Your task to perform on an android device: Open the phone app and click the voicemail tab. Image 0: 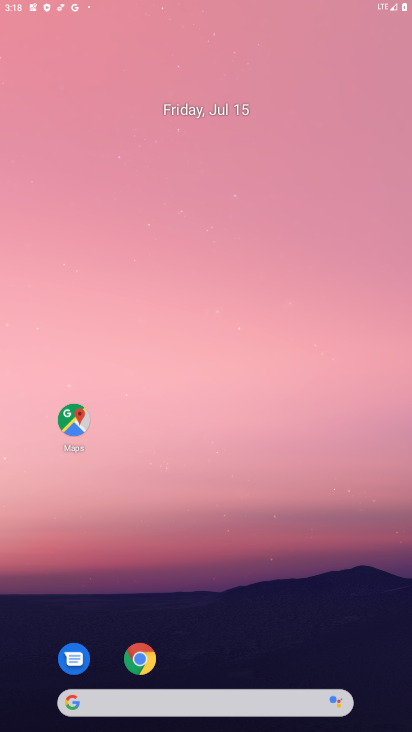
Step 0: press home button
Your task to perform on an android device: Open the phone app and click the voicemail tab. Image 1: 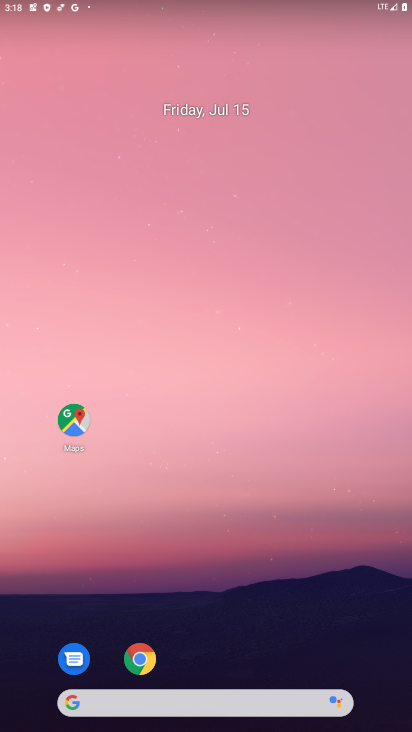
Step 1: drag from (259, 570) to (188, 236)
Your task to perform on an android device: Open the phone app and click the voicemail tab. Image 2: 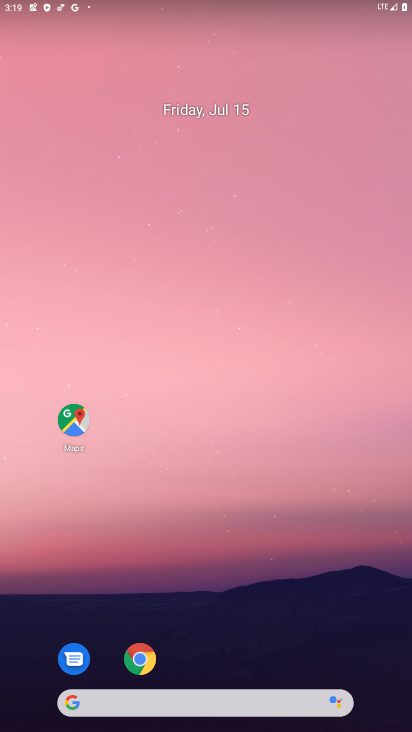
Step 2: drag from (225, 603) to (164, 73)
Your task to perform on an android device: Open the phone app and click the voicemail tab. Image 3: 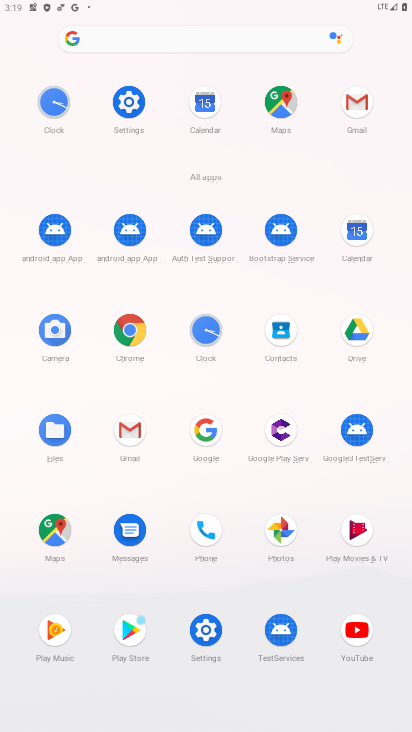
Step 3: click (195, 530)
Your task to perform on an android device: Open the phone app and click the voicemail tab. Image 4: 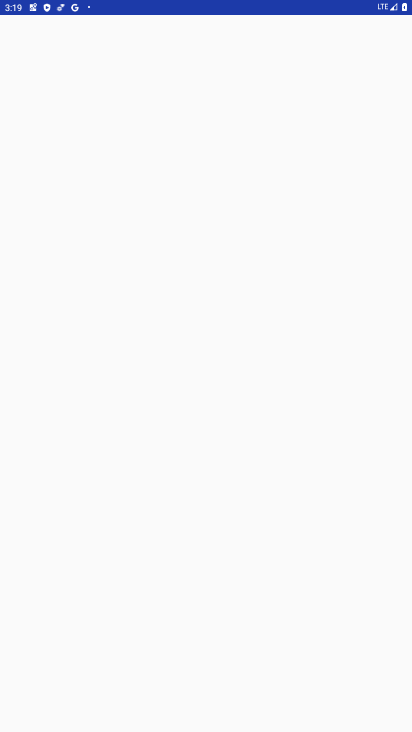
Step 4: click (205, 530)
Your task to perform on an android device: Open the phone app and click the voicemail tab. Image 5: 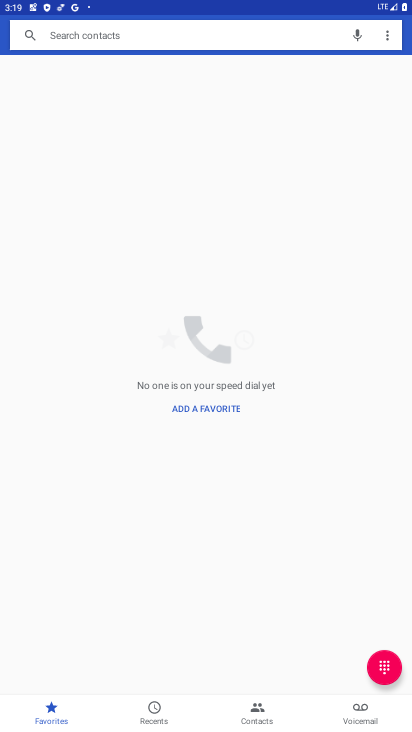
Step 5: click (358, 709)
Your task to perform on an android device: Open the phone app and click the voicemail tab. Image 6: 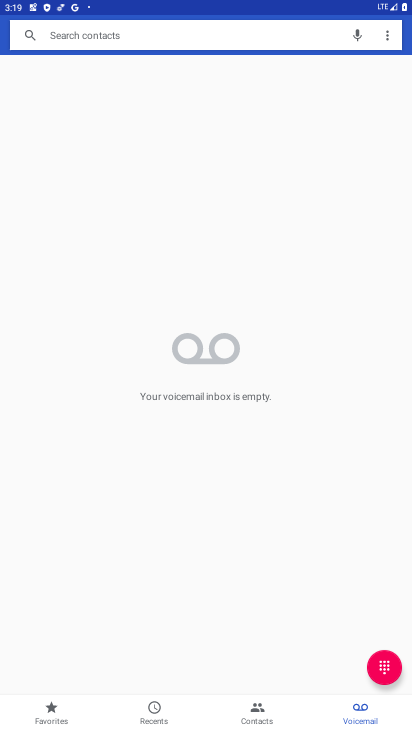
Step 6: task complete